Your task to perform on an android device: Do I have any events tomorrow? Image 0: 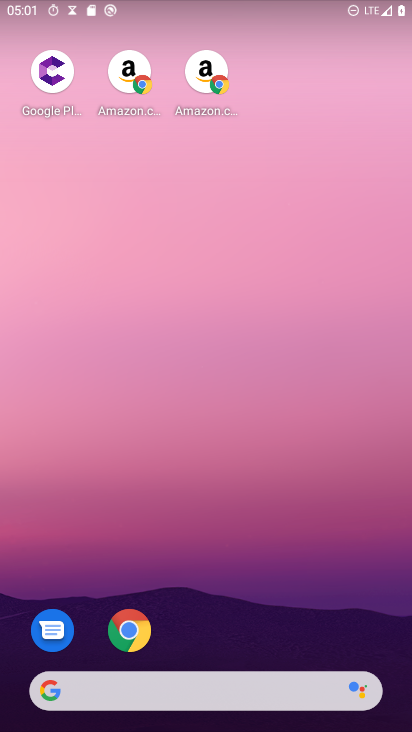
Step 0: drag from (217, 622) to (252, 120)
Your task to perform on an android device: Do I have any events tomorrow? Image 1: 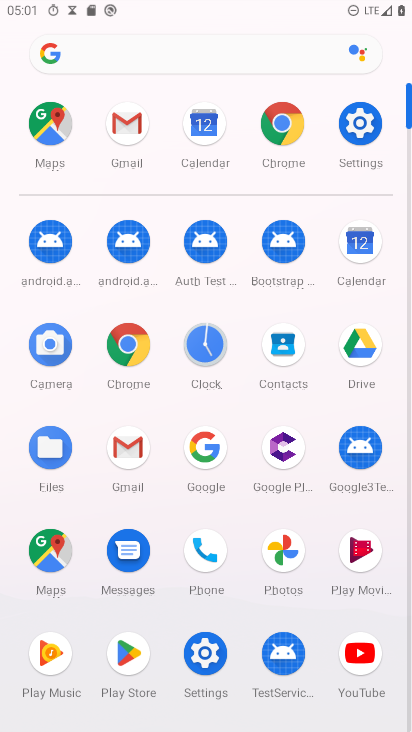
Step 1: click (367, 258)
Your task to perform on an android device: Do I have any events tomorrow? Image 2: 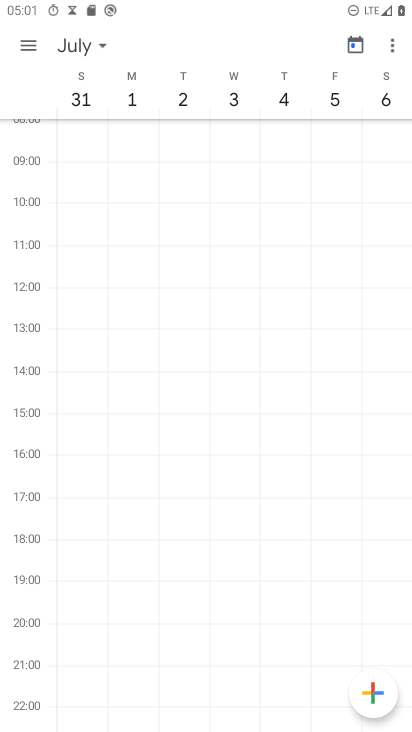
Step 2: click (101, 43)
Your task to perform on an android device: Do I have any events tomorrow? Image 3: 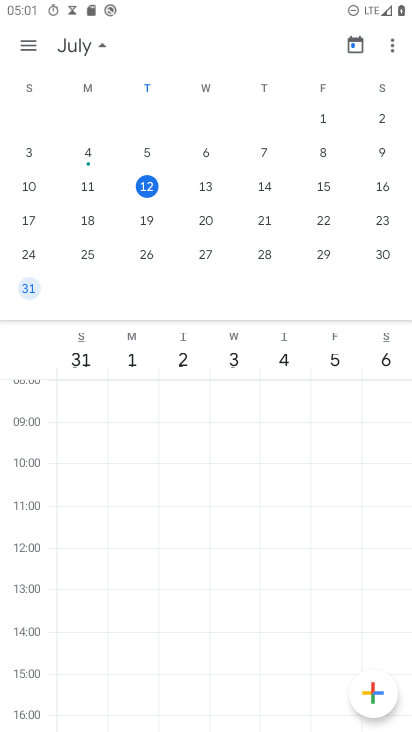
Step 3: click (207, 185)
Your task to perform on an android device: Do I have any events tomorrow? Image 4: 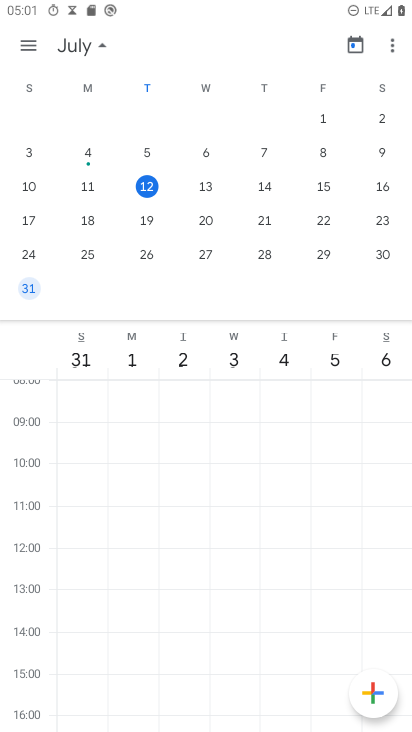
Step 4: task complete